Your task to perform on an android device: turn off location history Image 0: 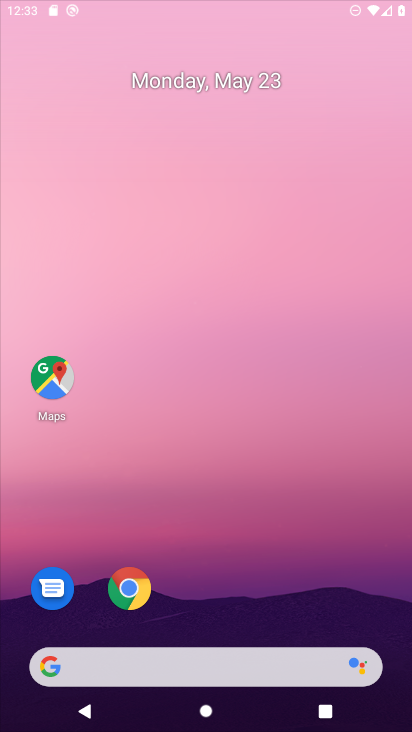
Step 0: press home button
Your task to perform on an android device: turn off location history Image 1: 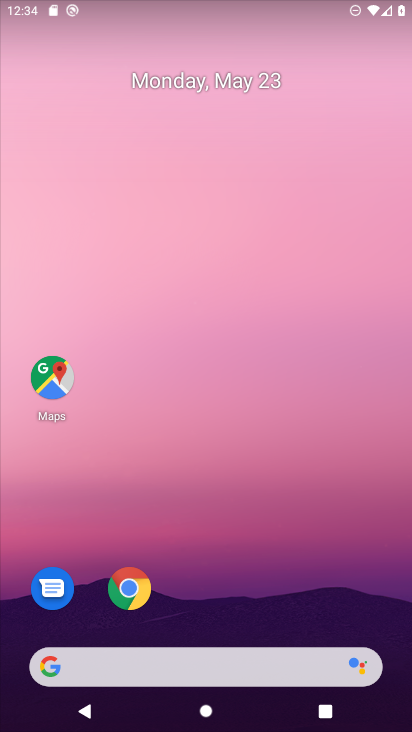
Step 1: drag from (203, 647) to (279, 155)
Your task to perform on an android device: turn off location history Image 2: 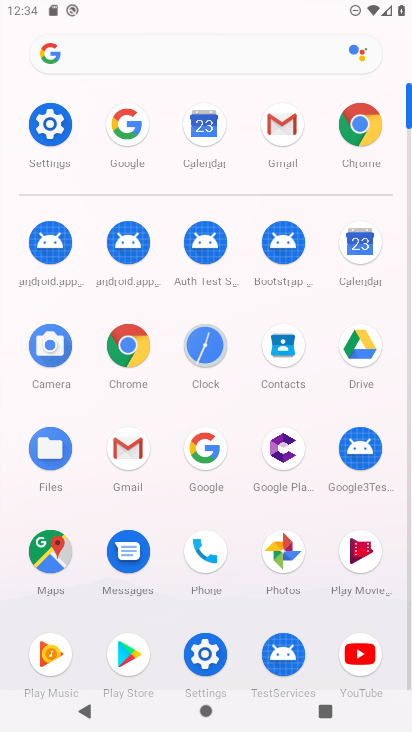
Step 2: click (58, 122)
Your task to perform on an android device: turn off location history Image 3: 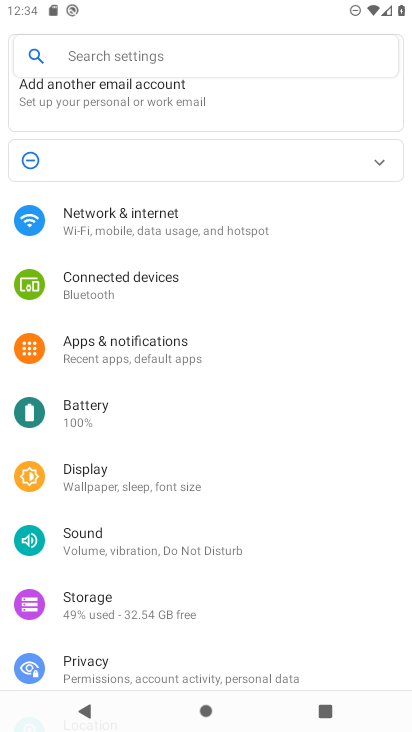
Step 3: drag from (105, 658) to (167, 265)
Your task to perform on an android device: turn off location history Image 4: 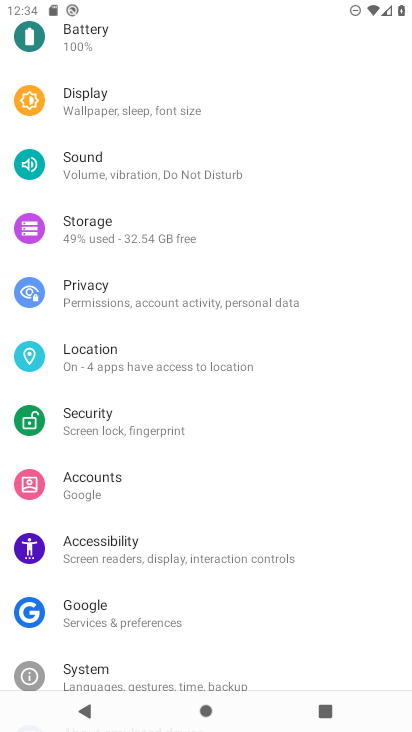
Step 4: click (104, 356)
Your task to perform on an android device: turn off location history Image 5: 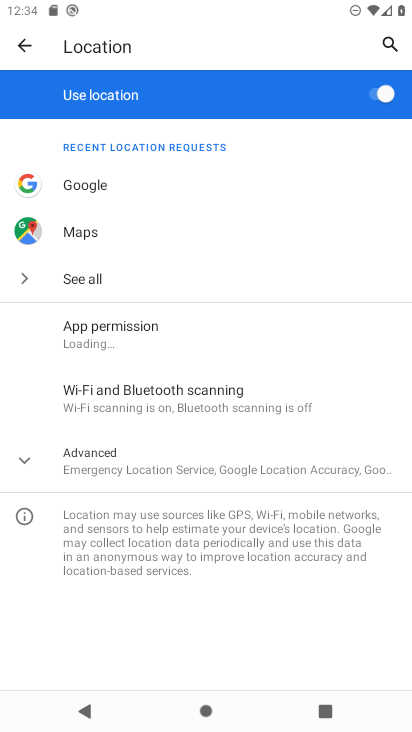
Step 5: click (111, 459)
Your task to perform on an android device: turn off location history Image 6: 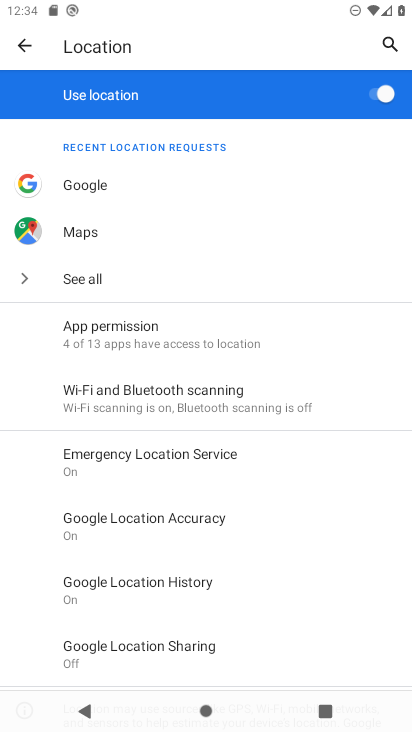
Step 6: click (148, 586)
Your task to perform on an android device: turn off location history Image 7: 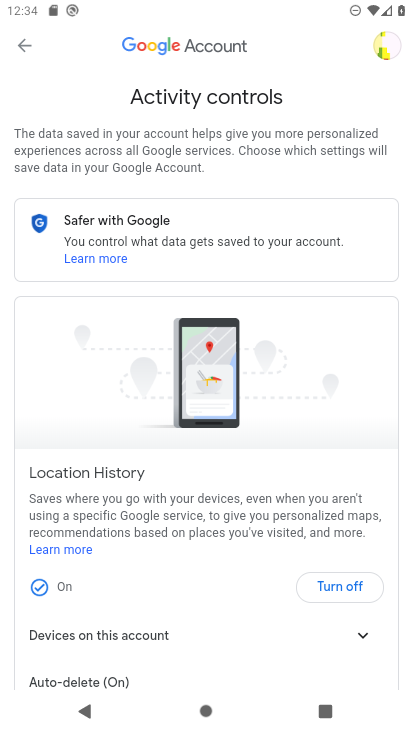
Step 7: click (338, 589)
Your task to perform on an android device: turn off location history Image 8: 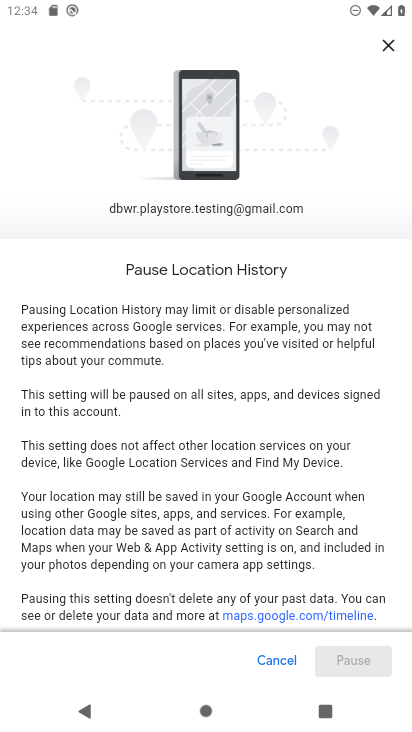
Step 8: drag from (332, 611) to (363, 212)
Your task to perform on an android device: turn off location history Image 9: 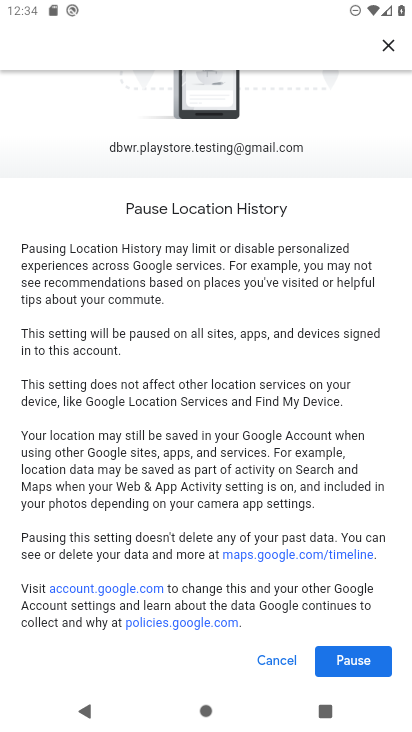
Step 9: click (345, 663)
Your task to perform on an android device: turn off location history Image 10: 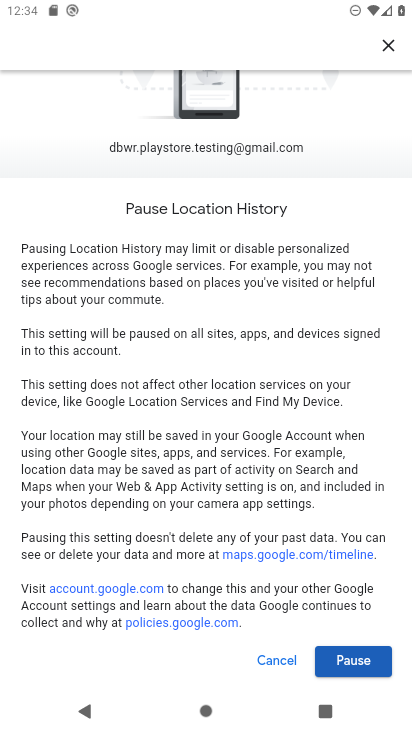
Step 10: click (343, 666)
Your task to perform on an android device: turn off location history Image 11: 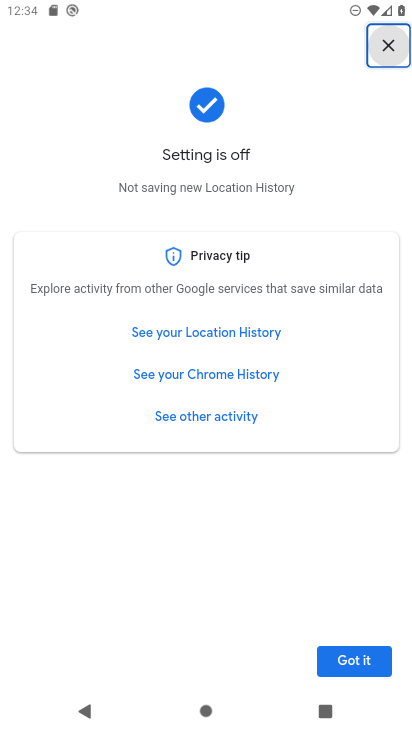
Step 11: click (375, 664)
Your task to perform on an android device: turn off location history Image 12: 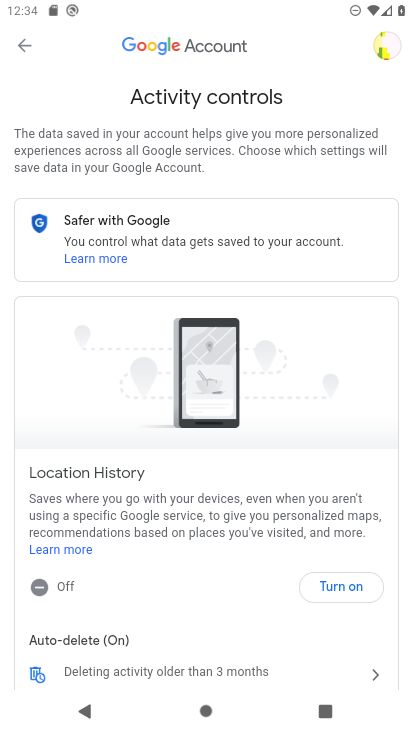
Step 12: task complete